Your task to perform on an android device: clear history in the chrome app Image 0: 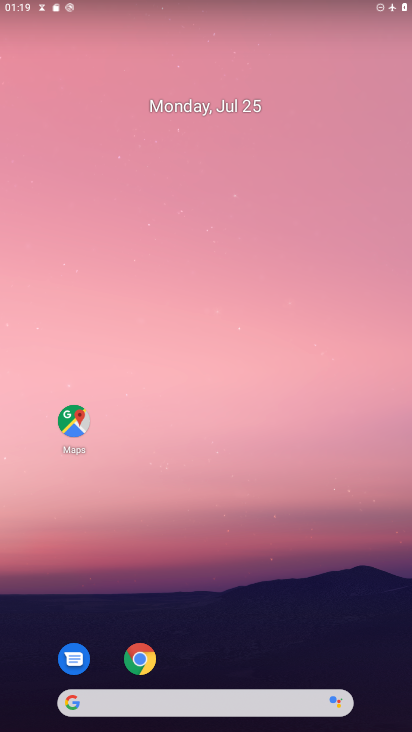
Step 0: drag from (334, 635) to (290, 187)
Your task to perform on an android device: clear history in the chrome app Image 1: 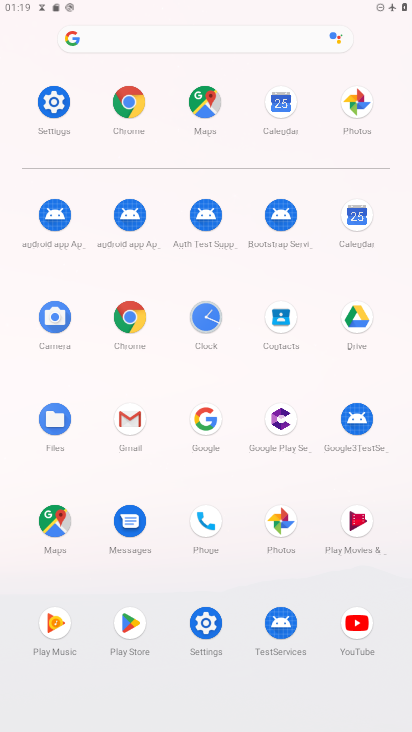
Step 1: click (128, 103)
Your task to perform on an android device: clear history in the chrome app Image 2: 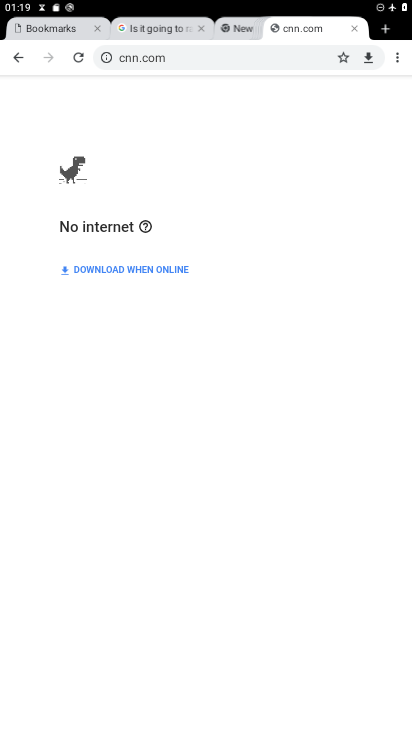
Step 2: click (409, 53)
Your task to perform on an android device: clear history in the chrome app Image 3: 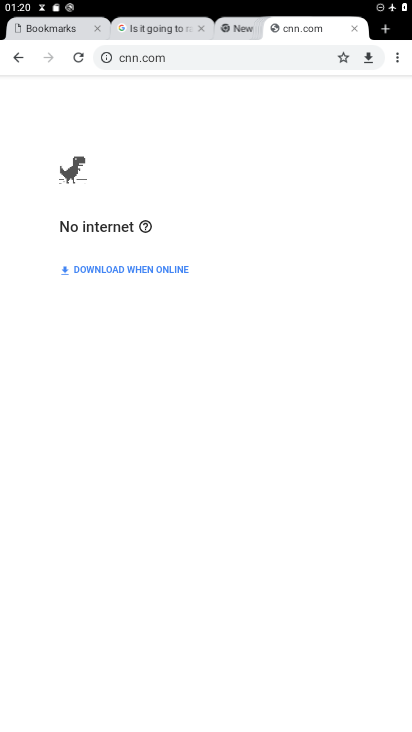
Step 3: click (409, 53)
Your task to perform on an android device: clear history in the chrome app Image 4: 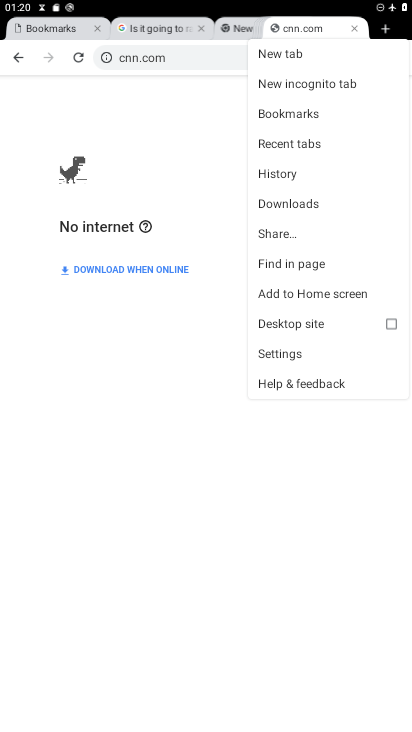
Step 4: click (297, 176)
Your task to perform on an android device: clear history in the chrome app Image 5: 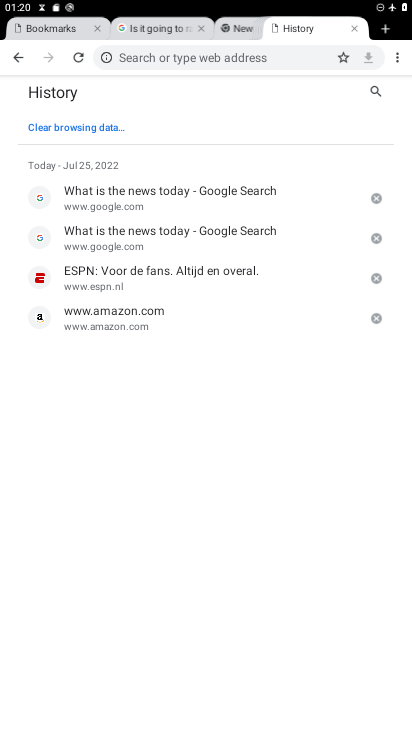
Step 5: click (67, 125)
Your task to perform on an android device: clear history in the chrome app Image 6: 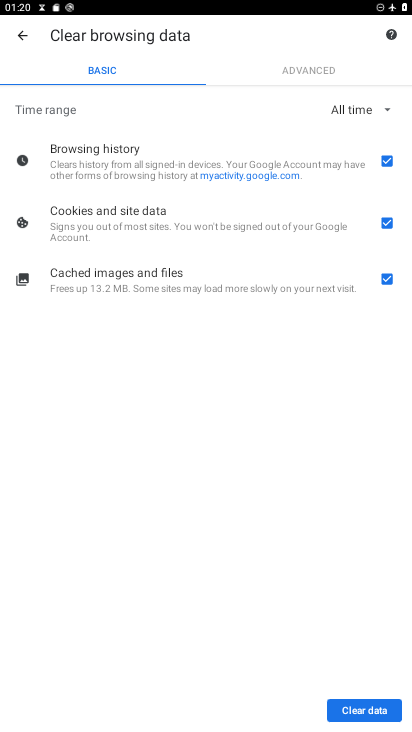
Step 6: click (374, 698)
Your task to perform on an android device: clear history in the chrome app Image 7: 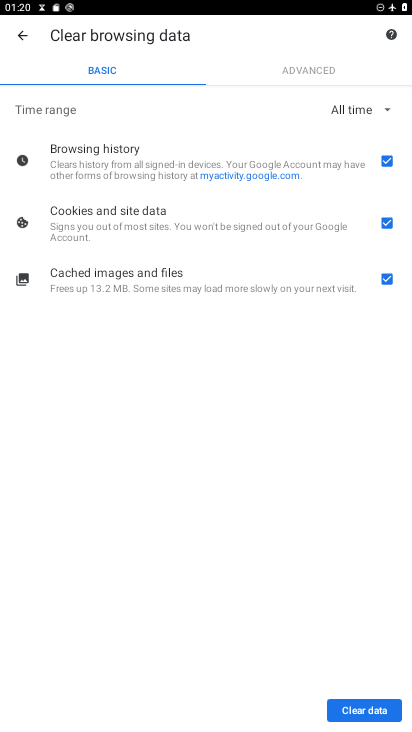
Step 7: click (364, 697)
Your task to perform on an android device: clear history in the chrome app Image 8: 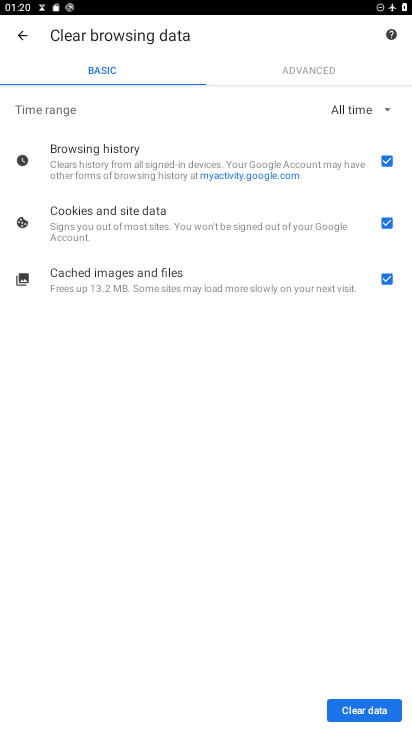
Step 8: click (366, 707)
Your task to perform on an android device: clear history in the chrome app Image 9: 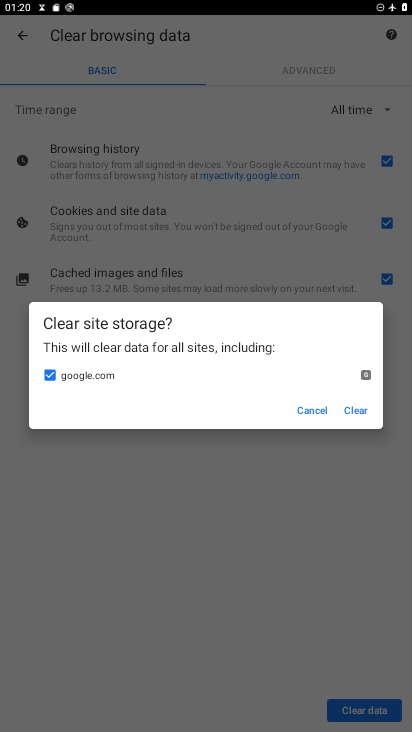
Step 9: click (360, 405)
Your task to perform on an android device: clear history in the chrome app Image 10: 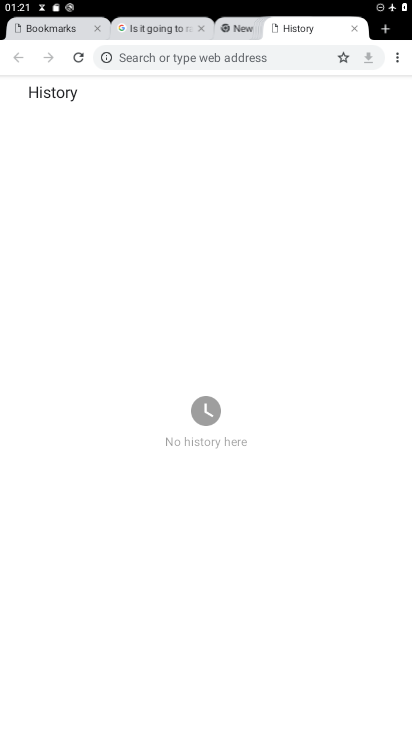
Step 10: task complete